Your task to perform on an android device: change the clock display to analog Image 0: 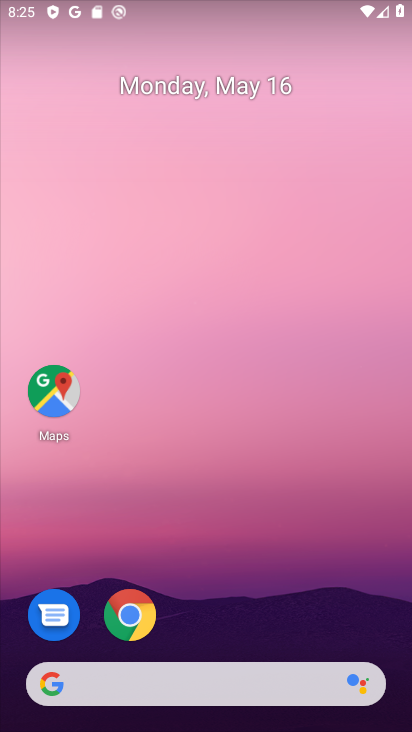
Step 0: drag from (5, 721) to (295, 105)
Your task to perform on an android device: change the clock display to analog Image 1: 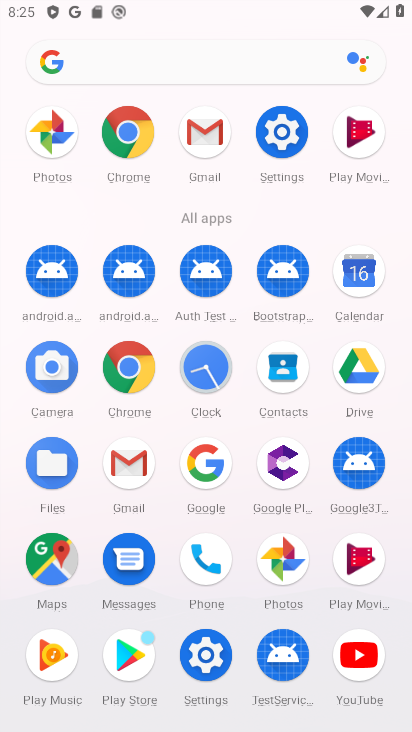
Step 1: click (197, 362)
Your task to perform on an android device: change the clock display to analog Image 2: 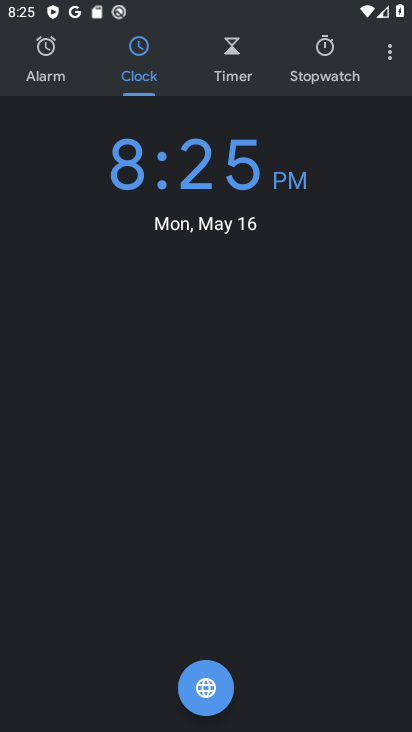
Step 2: click (390, 59)
Your task to perform on an android device: change the clock display to analog Image 3: 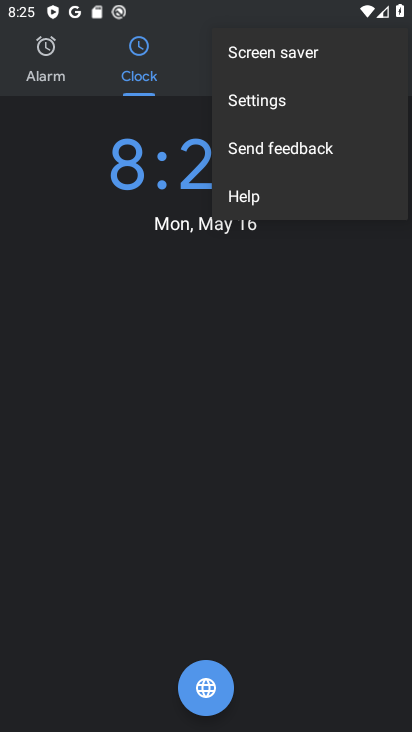
Step 3: click (310, 100)
Your task to perform on an android device: change the clock display to analog Image 4: 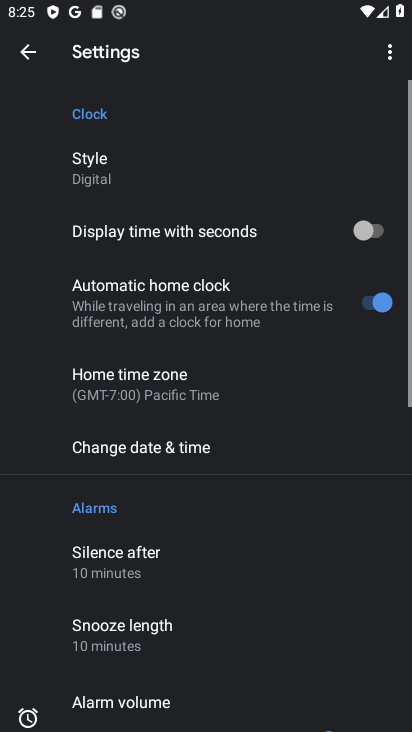
Step 4: click (117, 161)
Your task to perform on an android device: change the clock display to analog Image 5: 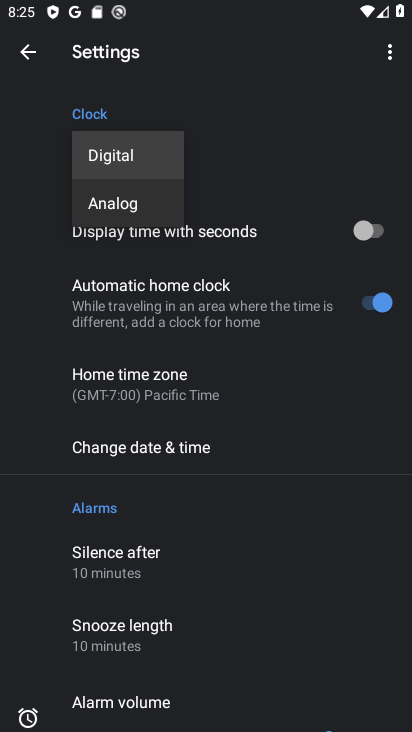
Step 5: click (112, 215)
Your task to perform on an android device: change the clock display to analog Image 6: 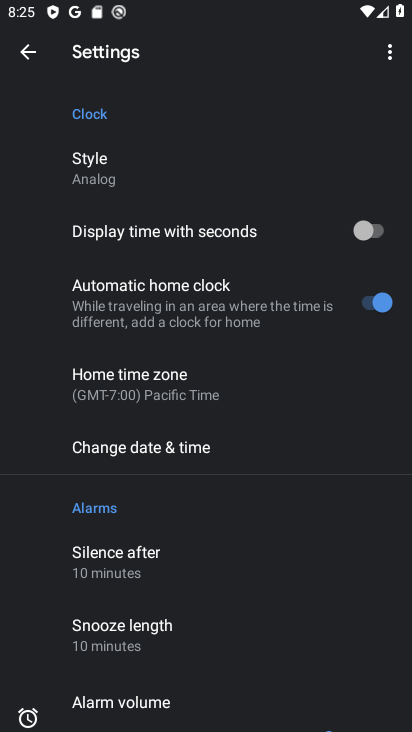
Step 6: task complete